Your task to perform on an android device: Open Google Chrome and open the bookmarks view Image 0: 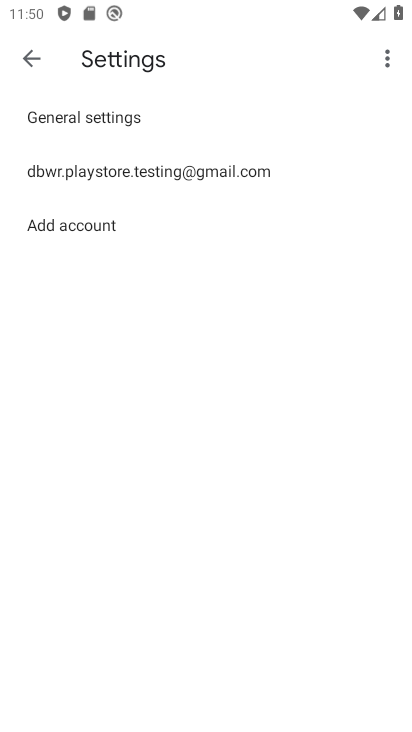
Step 0: press home button
Your task to perform on an android device: Open Google Chrome and open the bookmarks view Image 1: 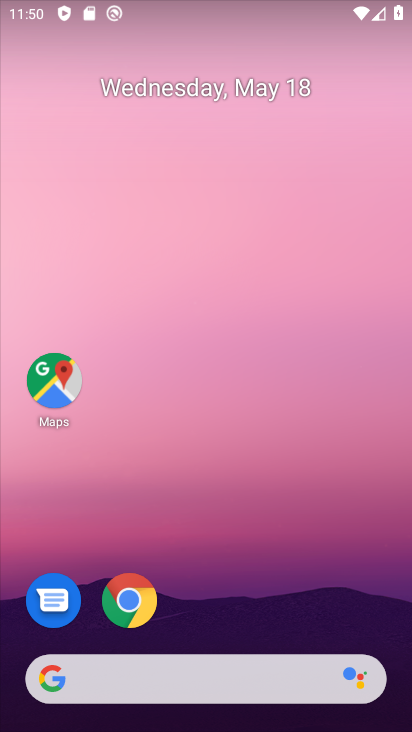
Step 1: click (127, 600)
Your task to perform on an android device: Open Google Chrome and open the bookmarks view Image 2: 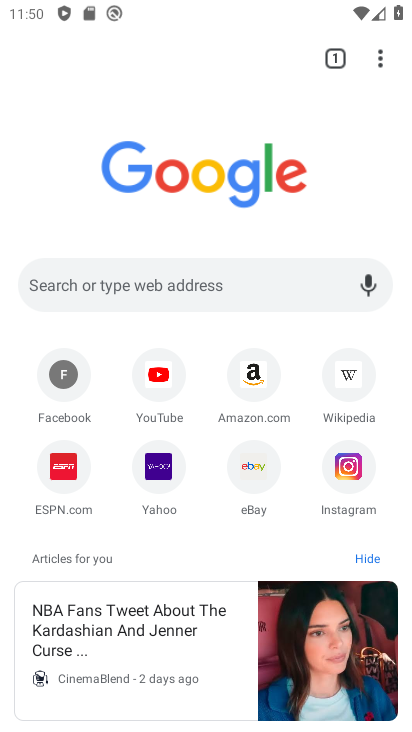
Step 2: click (373, 62)
Your task to perform on an android device: Open Google Chrome and open the bookmarks view Image 3: 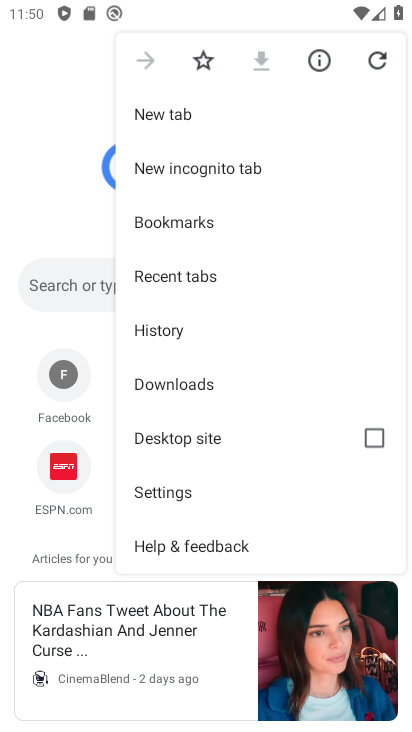
Step 3: click (187, 224)
Your task to perform on an android device: Open Google Chrome and open the bookmarks view Image 4: 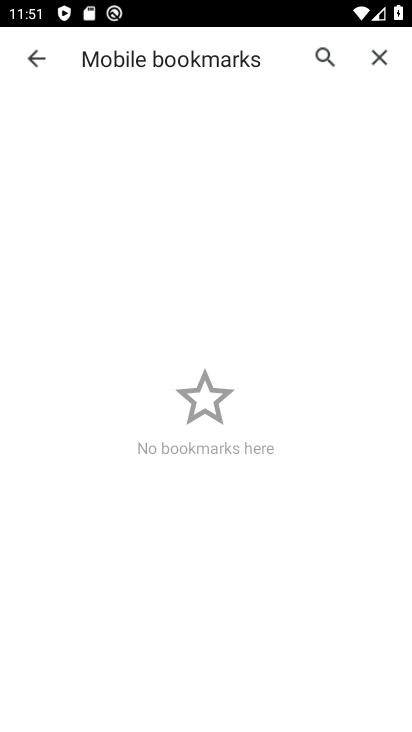
Step 4: task complete